Your task to perform on an android device: show emergency info Image 0: 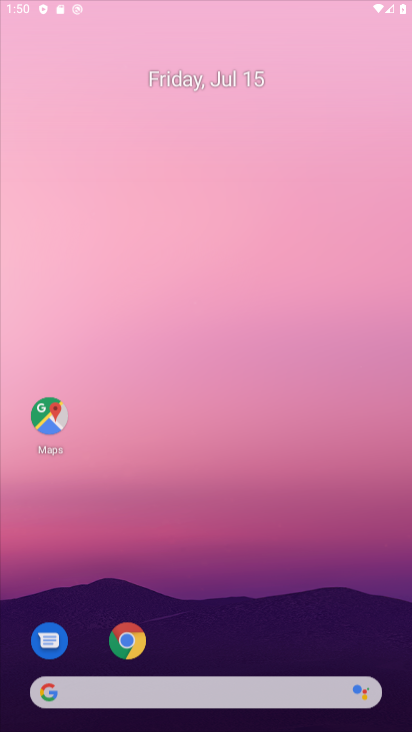
Step 0: drag from (12, 695) to (202, 205)
Your task to perform on an android device: show emergency info Image 1: 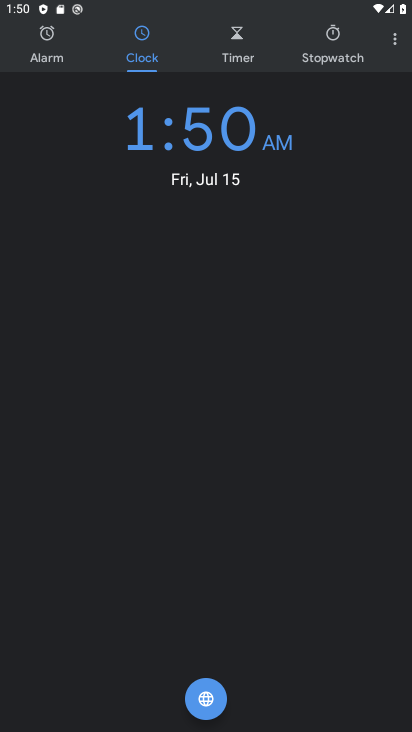
Step 1: press home button
Your task to perform on an android device: show emergency info Image 2: 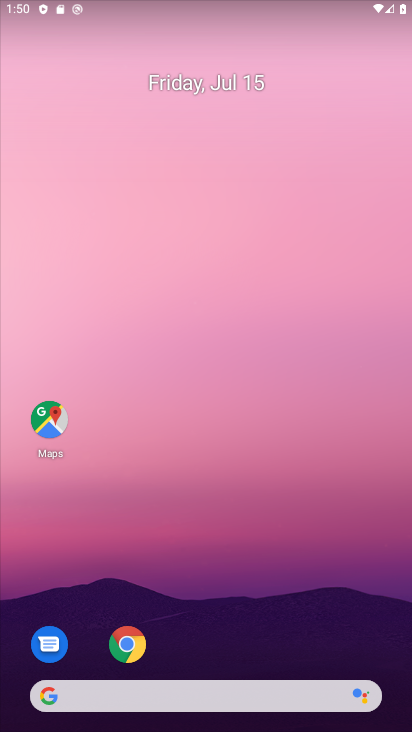
Step 2: drag from (21, 664) to (207, 212)
Your task to perform on an android device: show emergency info Image 3: 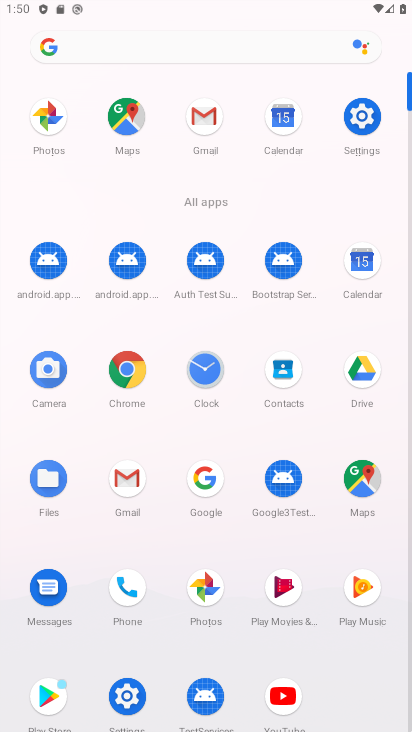
Step 3: click (135, 694)
Your task to perform on an android device: show emergency info Image 4: 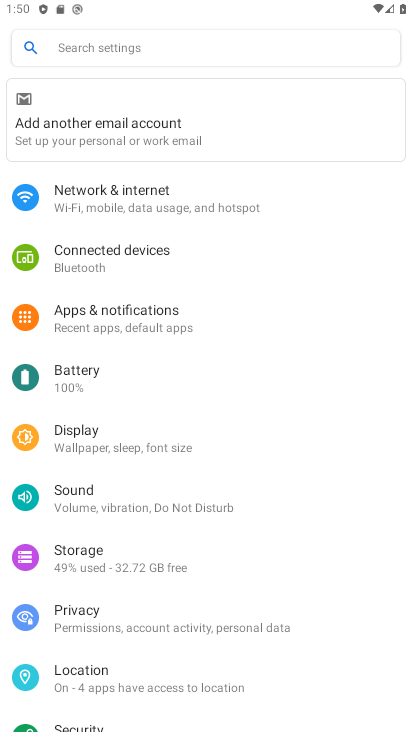
Step 4: drag from (332, 568) to (358, 160)
Your task to perform on an android device: show emergency info Image 5: 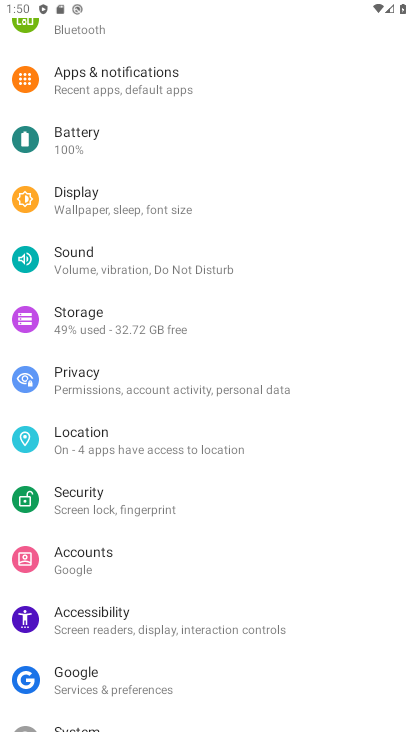
Step 5: drag from (307, 693) to (316, 112)
Your task to perform on an android device: show emergency info Image 6: 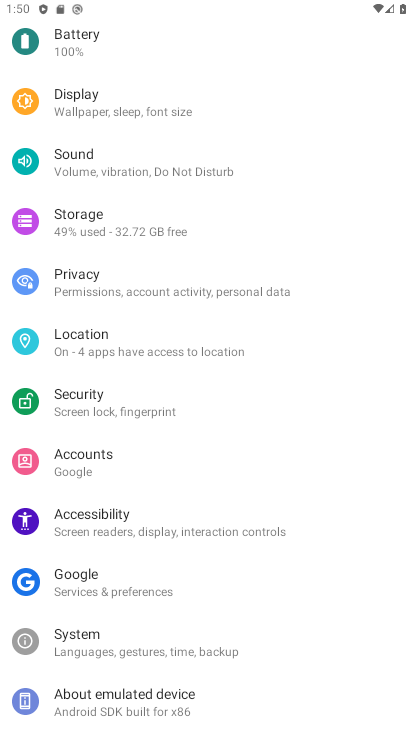
Step 6: drag from (346, 54) to (357, 713)
Your task to perform on an android device: show emergency info Image 7: 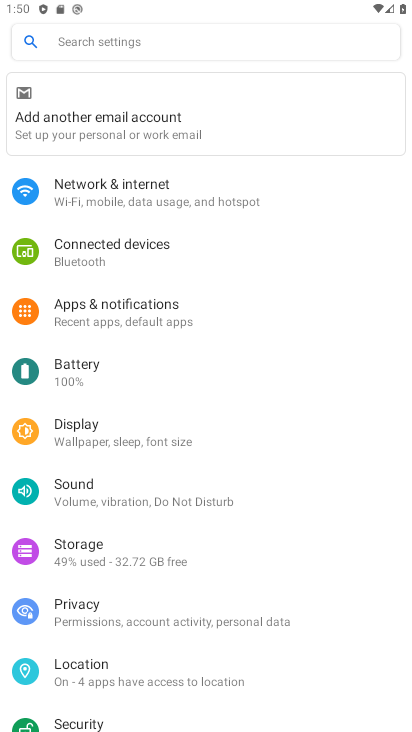
Step 7: click (143, 313)
Your task to perform on an android device: show emergency info Image 8: 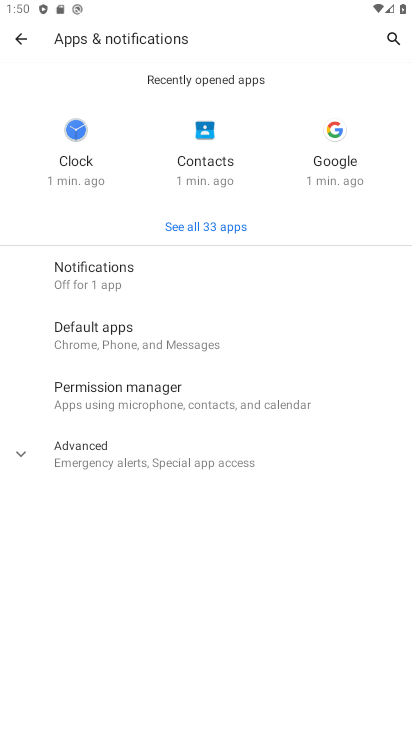
Step 8: click (123, 462)
Your task to perform on an android device: show emergency info Image 9: 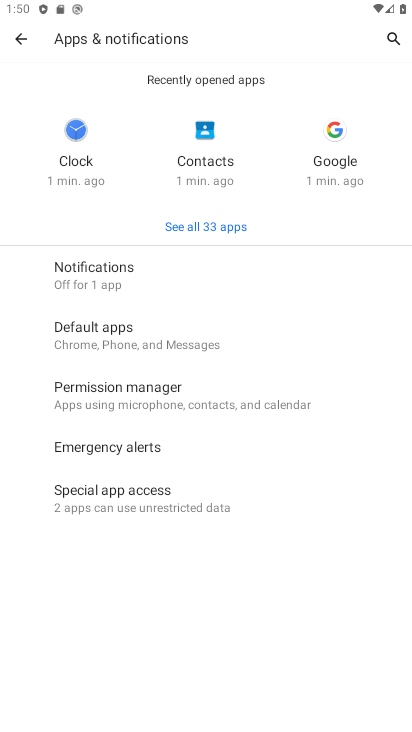
Step 9: click (154, 446)
Your task to perform on an android device: show emergency info Image 10: 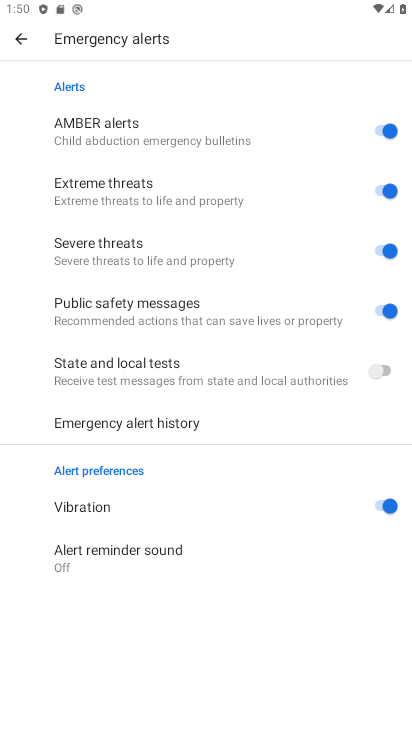
Step 10: task complete